Your task to perform on an android device: Search for Mexican restaurants on Maps Image 0: 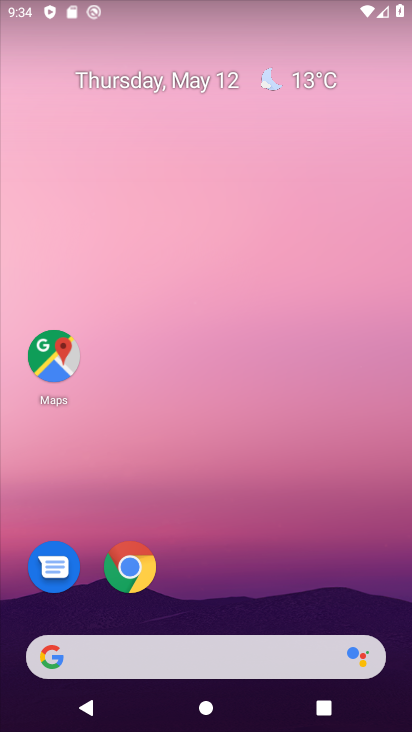
Step 0: click (63, 345)
Your task to perform on an android device: Search for Mexican restaurants on Maps Image 1: 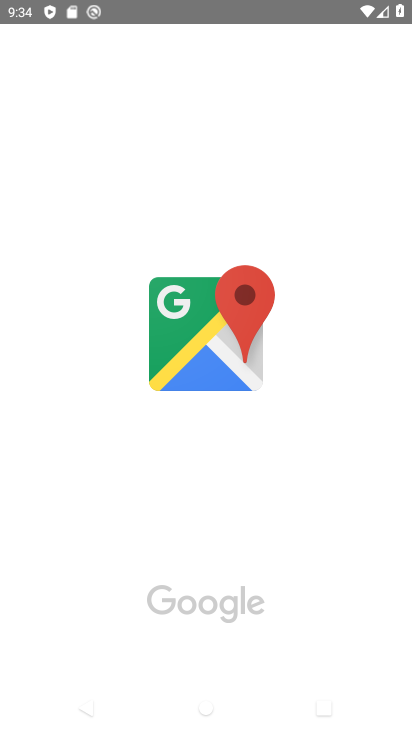
Step 1: click (58, 379)
Your task to perform on an android device: Search for Mexican restaurants on Maps Image 2: 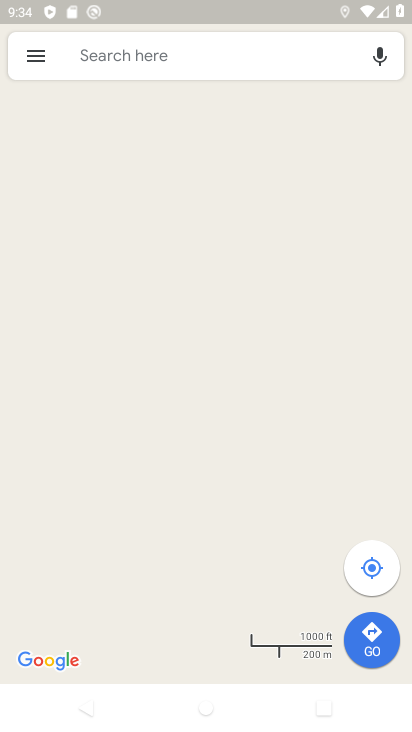
Step 2: click (176, 59)
Your task to perform on an android device: Search for Mexican restaurants on Maps Image 3: 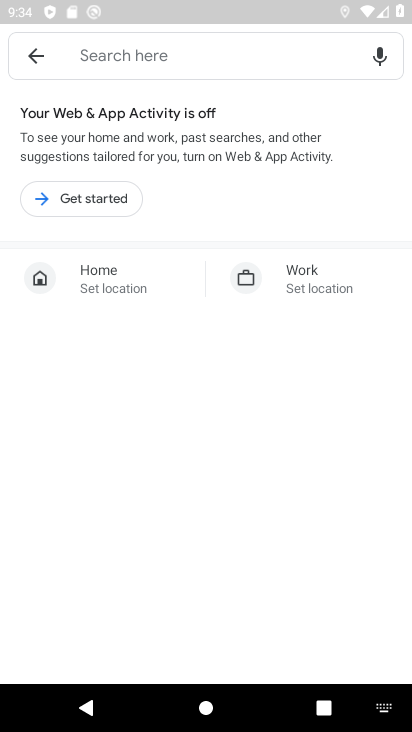
Step 3: click (121, 53)
Your task to perform on an android device: Search for Mexican restaurants on Maps Image 4: 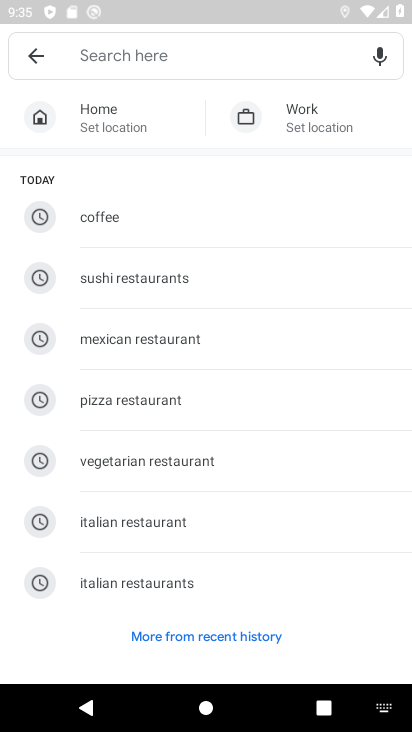
Step 4: type "mexican restaurants"
Your task to perform on an android device: Search for Mexican restaurants on Maps Image 5: 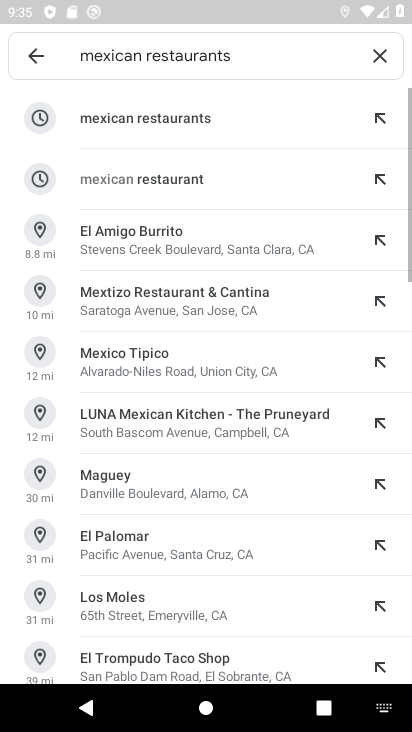
Step 5: click (170, 123)
Your task to perform on an android device: Search for Mexican restaurants on Maps Image 6: 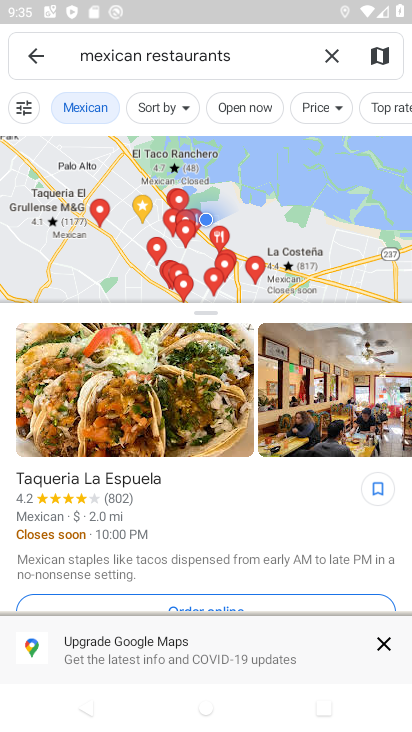
Step 6: task complete